Your task to perform on an android device: Show me recent news Image 0: 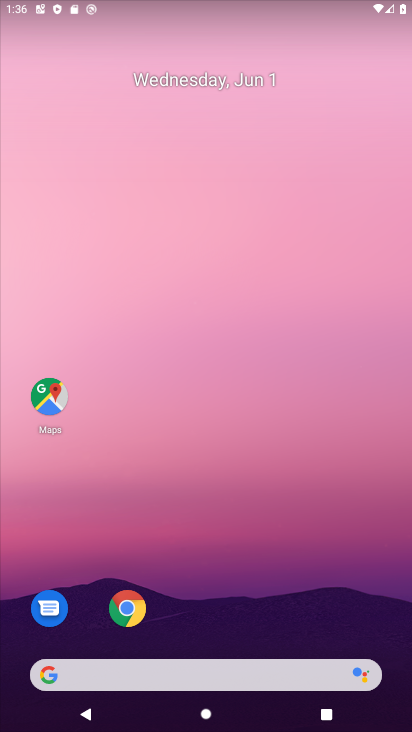
Step 0: press home button
Your task to perform on an android device: Show me recent news Image 1: 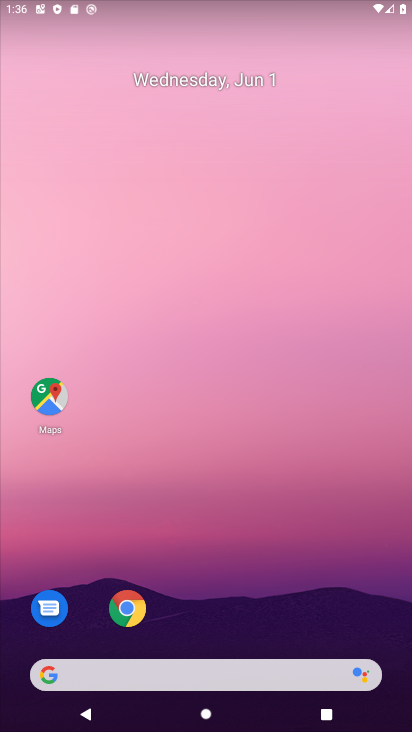
Step 1: click (165, 682)
Your task to perform on an android device: Show me recent news Image 2: 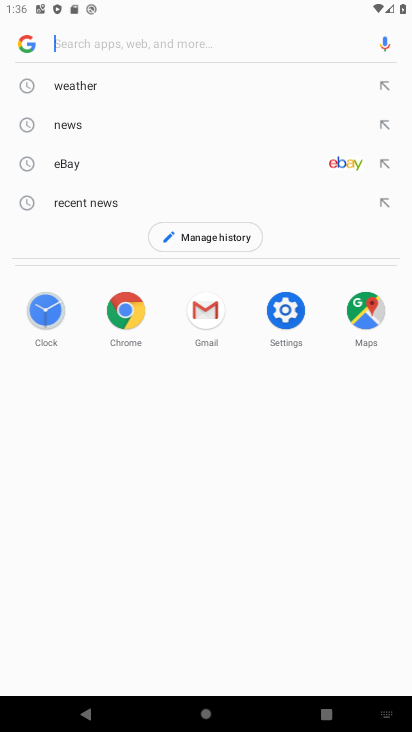
Step 2: click (117, 207)
Your task to perform on an android device: Show me recent news Image 3: 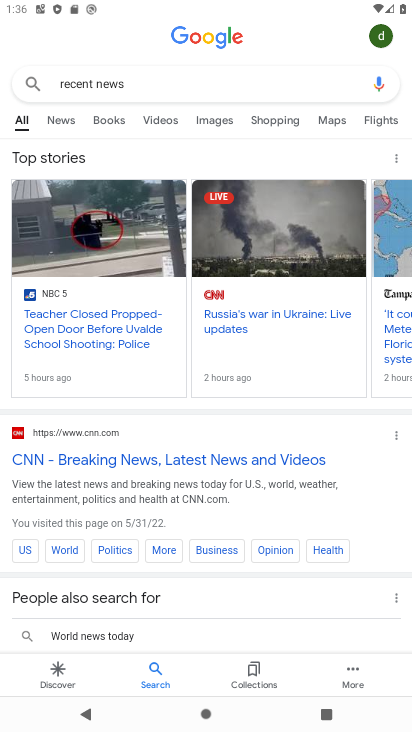
Step 3: task complete